Your task to perform on an android device: Show me recent news Image 0: 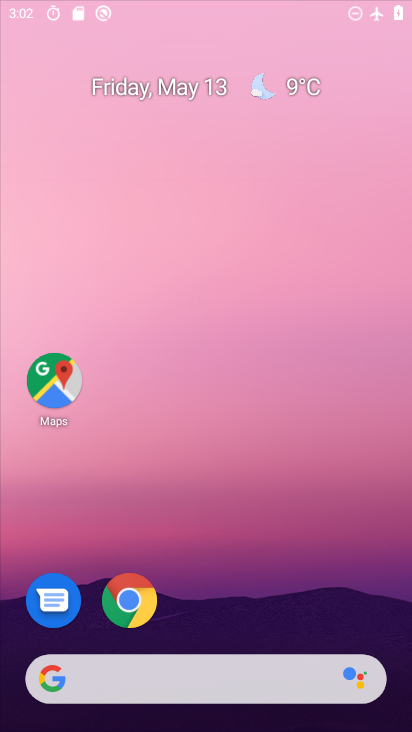
Step 0: drag from (200, 311) to (202, 235)
Your task to perform on an android device: Show me recent news Image 1: 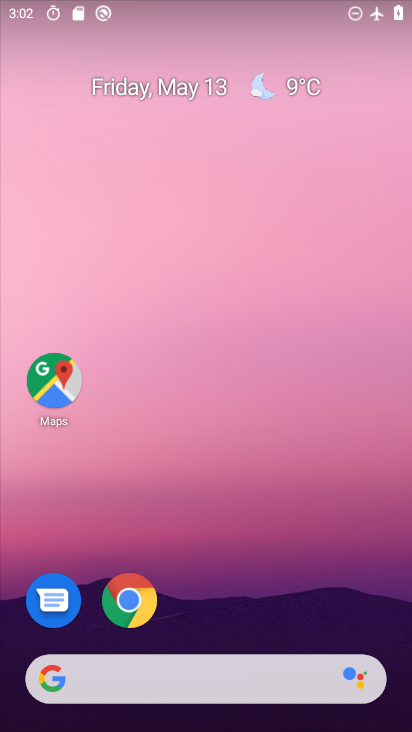
Step 1: drag from (199, 541) to (187, 294)
Your task to perform on an android device: Show me recent news Image 2: 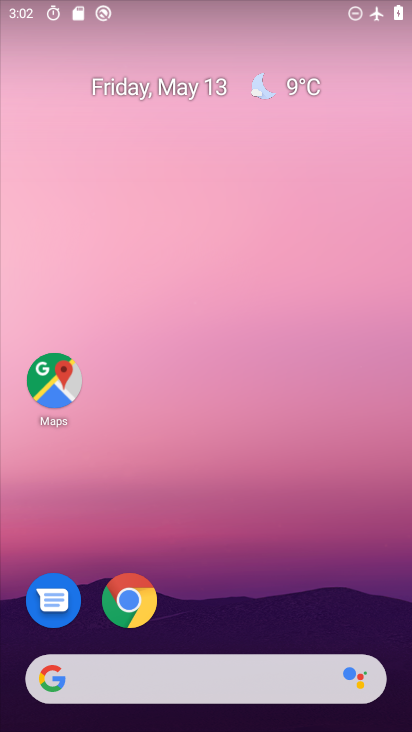
Step 2: drag from (189, 568) to (195, 190)
Your task to perform on an android device: Show me recent news Image 3: 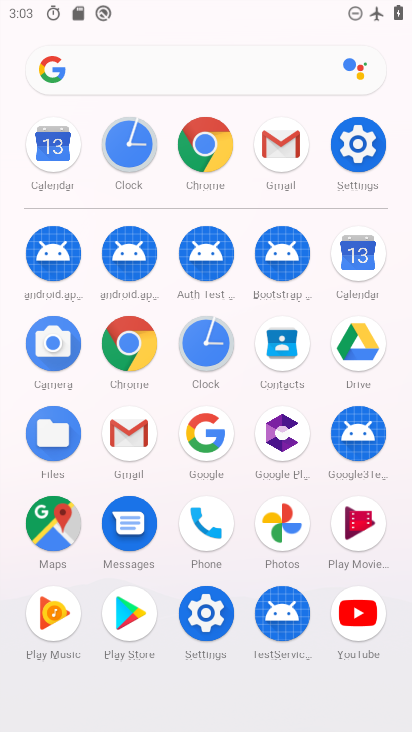
Step 3: click (140, 66)
Your task to perform on an android device: Show me recent news Image 4: 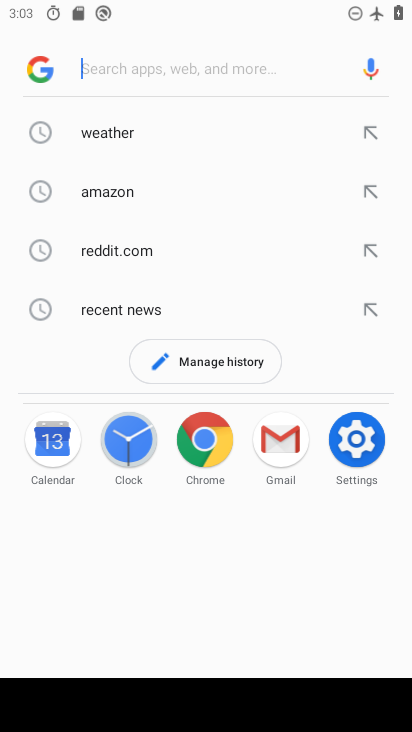
Step 4: click (150, 306)
Your task to perform on an android device: Show me recent news Image 5: 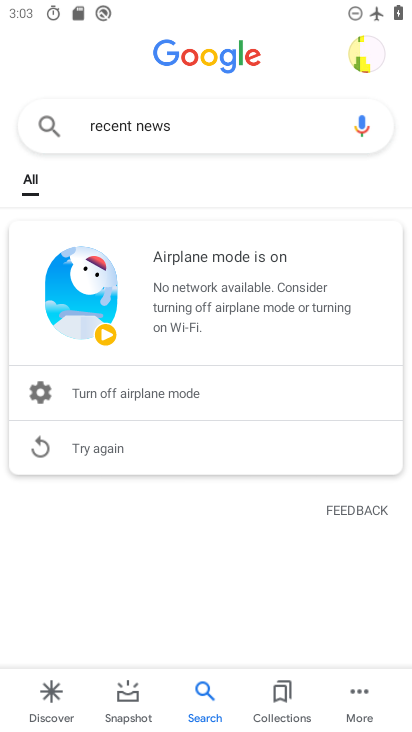
Step 5: drag from (219, 544) to (224, 207)
Your task to perform on an android device: Show me recent news Image 6: 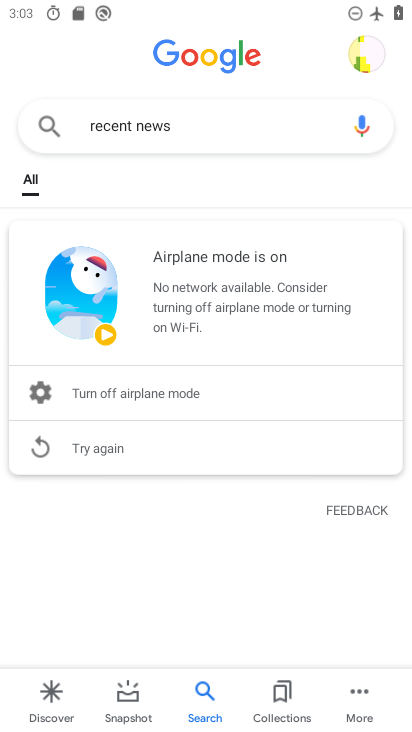
Step 6: drag from (208, 528) to (229, 232)
Your task to perform on an android device: Show me recent news Image 7: 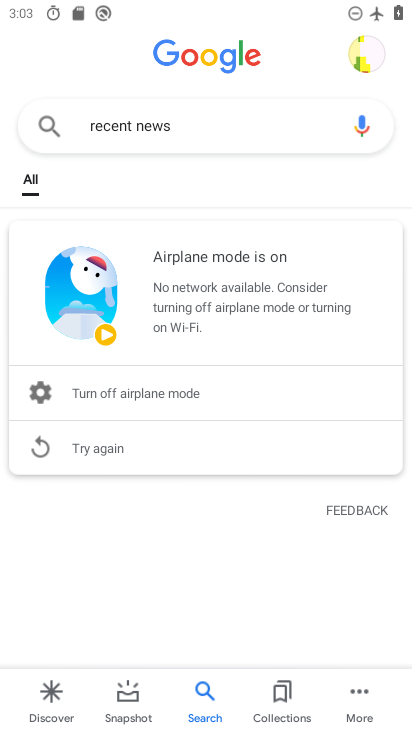
Step 7: click (205, 186)
Your task to perform on an android device: Show me recent news Image 8: 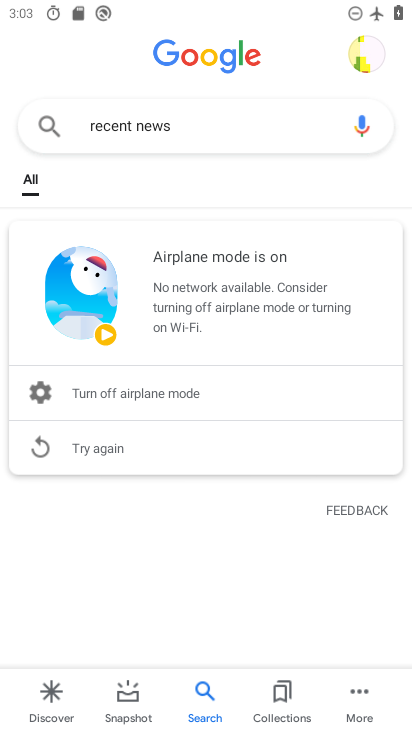
Step 8: task complete